Your task to perform on an android device: Open Youtube and go to the subscriptions tab Image 0: 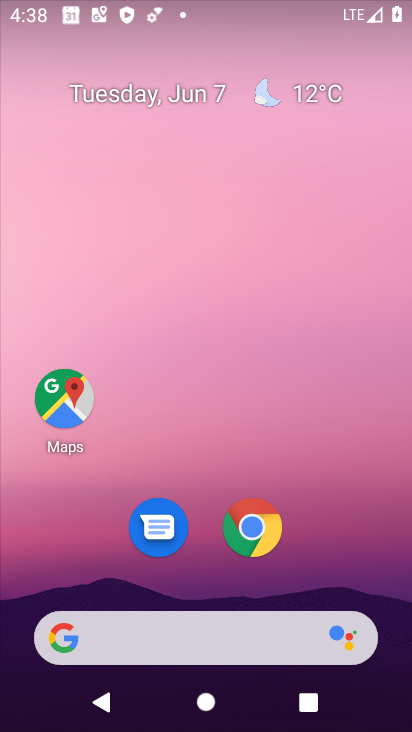
Step 0: drag from (337, 542) to (221, 164)
Your task to perform on an android device: Open Youtube and go to the subscriptions tab Image 1: 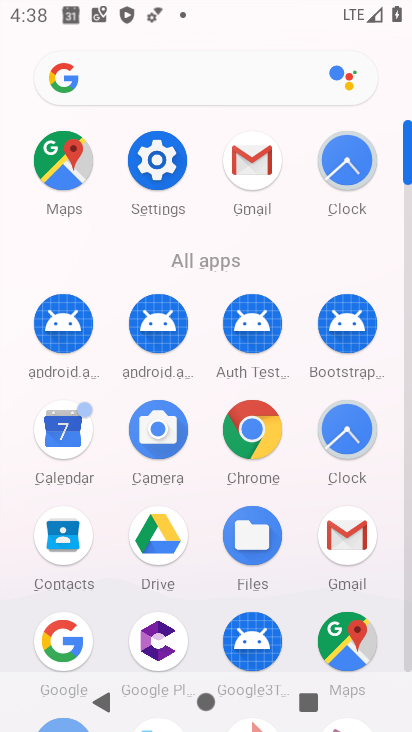
Step 1: drag from (290, 511) to (295, 237)
Your task to perform on an android device: Open Youtube and go to the subscriptions tab Image 2: 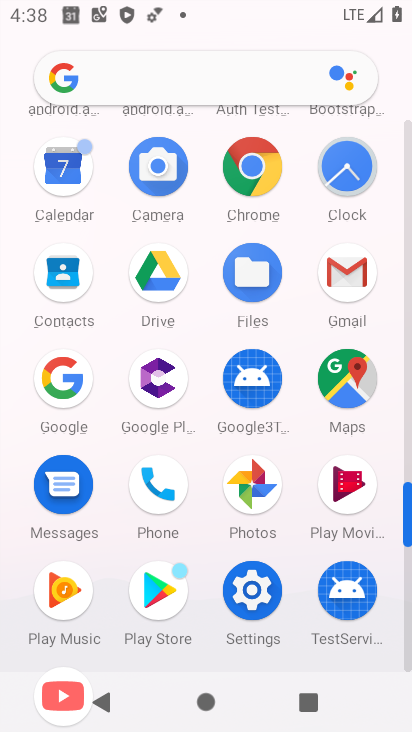
Step 2: drag from (294, 444) to (312, 235)
Your task to perform on an android device: Open Youtube and go to the subscriptions tab Image 3: 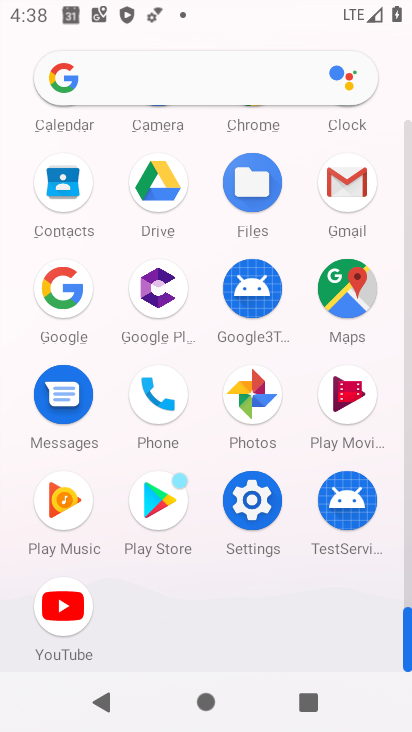
Step 3: click (63, 604)
Your task to perform on an android device: Open Youtube and go to the subscriptions tab Image 4: 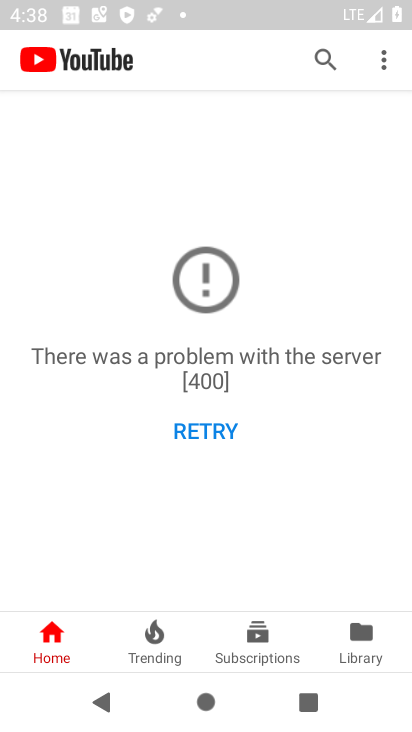
Step 4: click (257, 637)
Your task to perform on an android device: Open Youtube and go to the subscriptions tab Image 5: 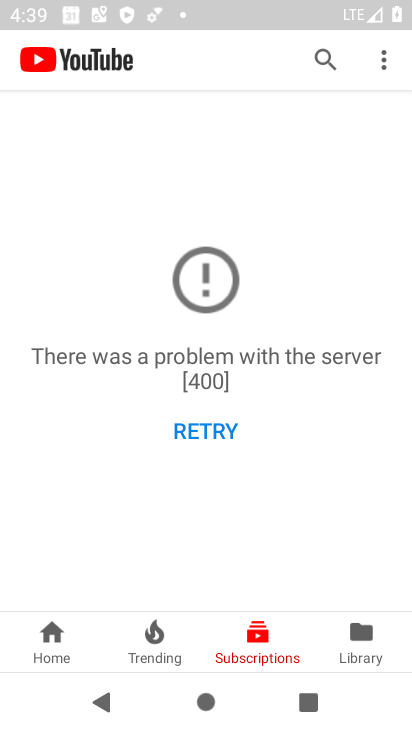
Step 5: task complete